Your task to perform on an android device: turn on wifi Image 0: 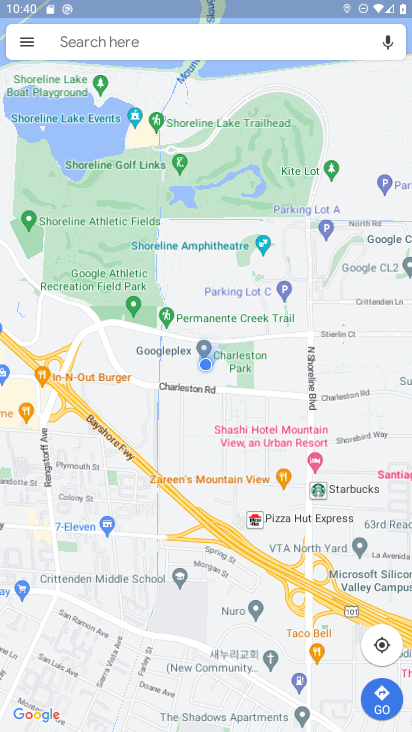
Step 0: press home button
Your task to perform on an android device: turn on wifi Image 1: 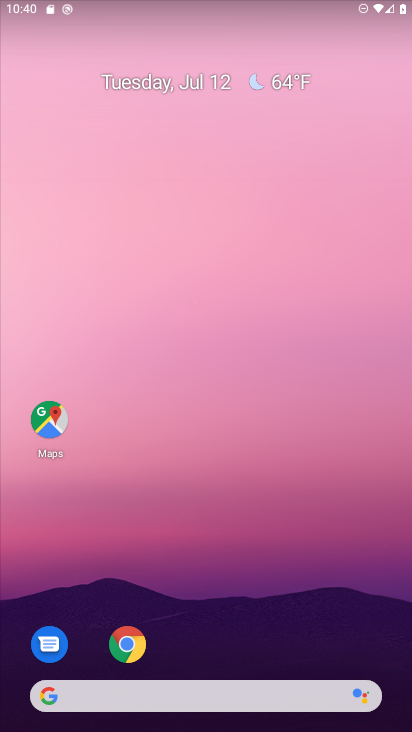
Step 1: drag from (246, 655) to (286, 167)
Your task to perform on an android device: turn on wifi Image 2: 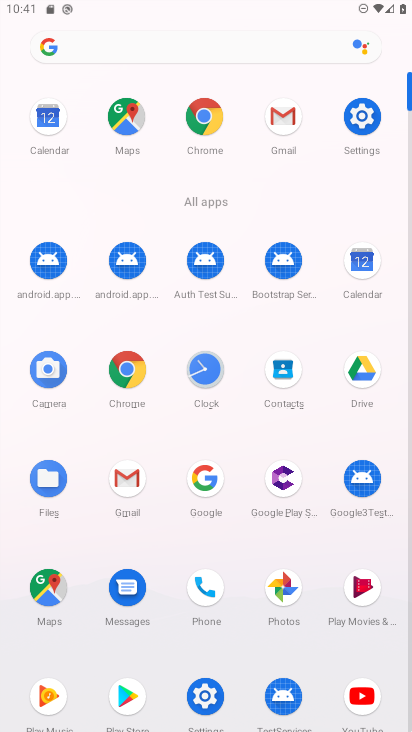
Step 2: click (348, 116)
Your task to perform on an android device: turn on wifi Image 3: 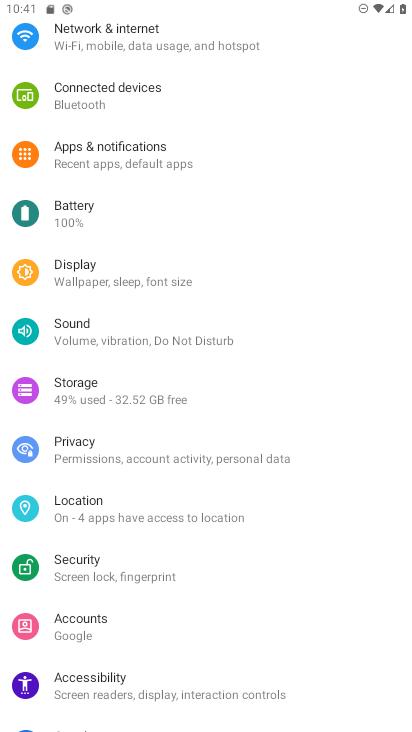
Step 3: drag from (194, 116) to (156, 600)
Your task to perform on an android device: turn on wifi Image 4: 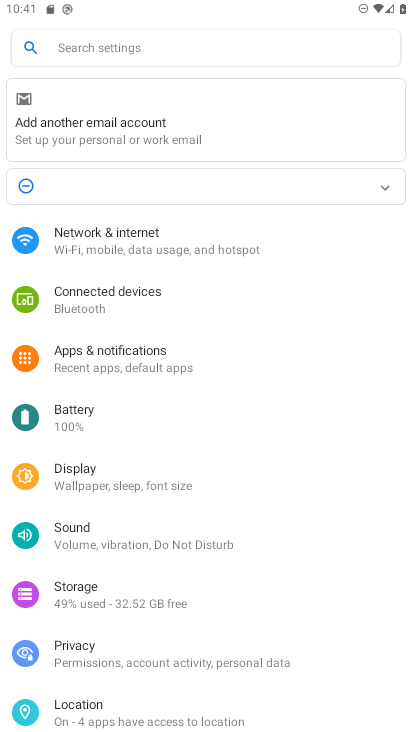
Step 4: click (162, 248)
Your task to perform on an android device: turn on wifi Image 5: 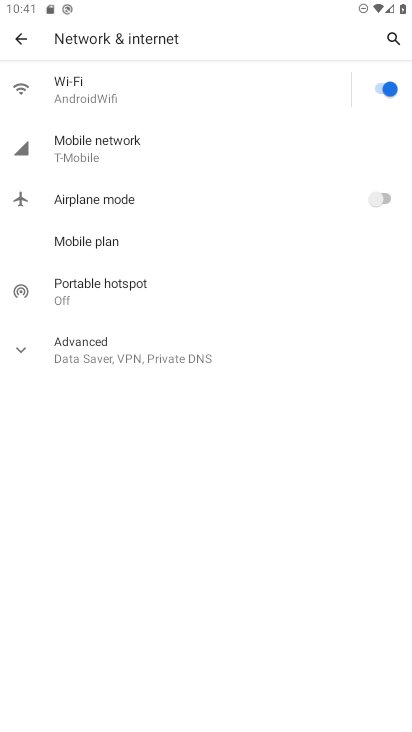
Step 5: click (373, 79)
Your task to perform on an android device: turn on wifi Image 6: 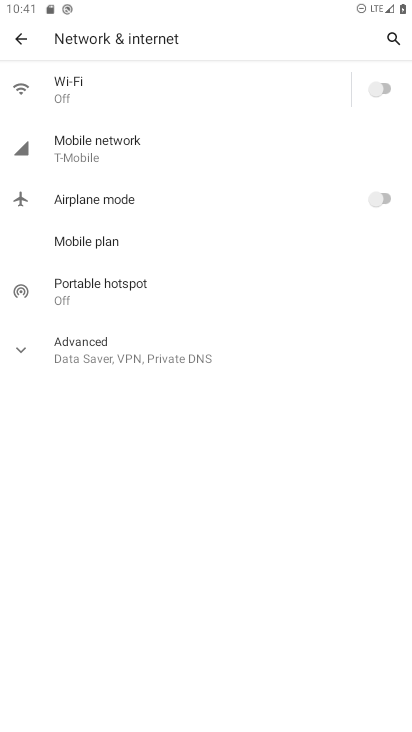
Step 6: task complete